Your task to perform on an android device: Go to wifi settings Image 0: 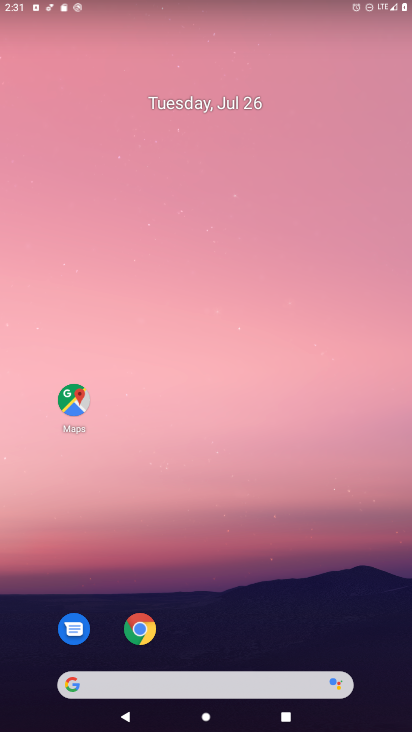
Step 0: drag from (382, 649) to (303, 196)
Your task to perform on an android device: Go to wifi settings Image 1: 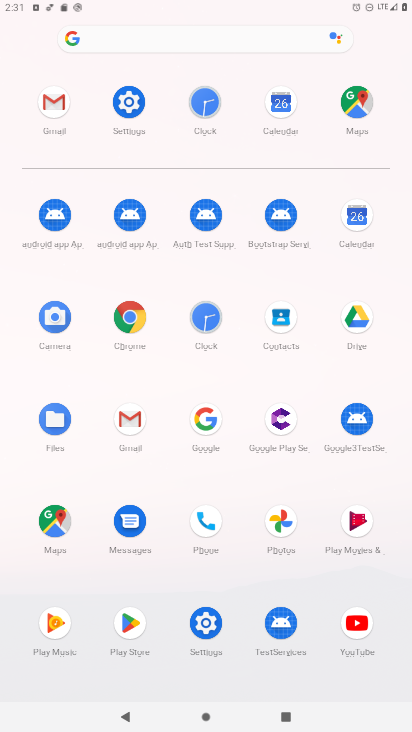
Step 1: click (206, 622)
Your task to perform on an android device: Go to wifi settings Image 2: 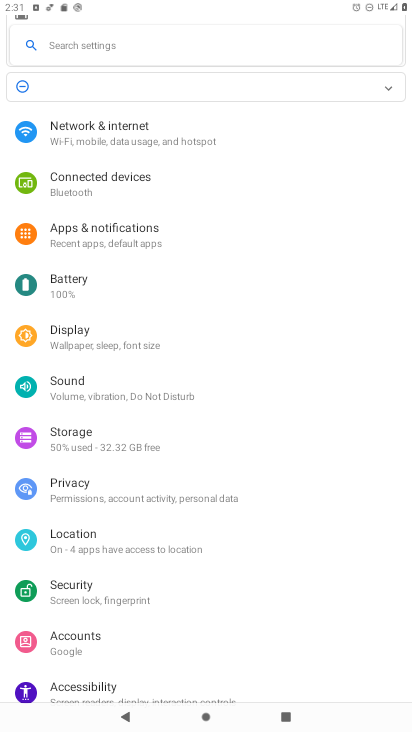
Step 2: click (126, 119)
Your task to perform on an android device: Go to wifi settings Image 3: 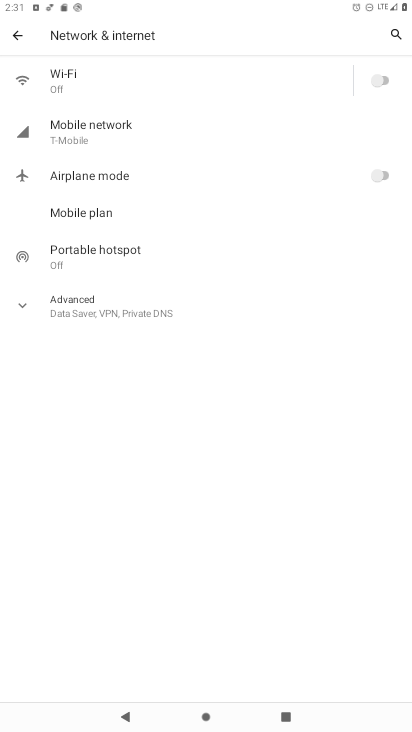
Step 3: click (57, 79)
Your task to perform on an android device: Go to wifi settings Image 4: 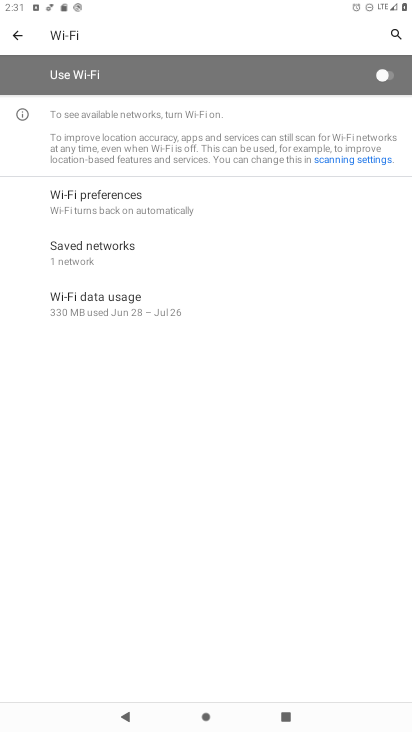
Step 4: task complete